Your task to perform on an android device: turn on airplane mode Image 0: 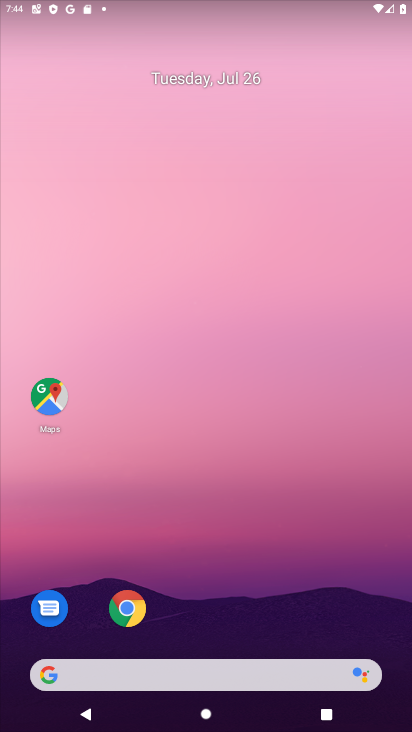
Step 0: drag from (303, 510) to (261, 195)
Your task to perform on an android device: turn on airplane mode Image 1: 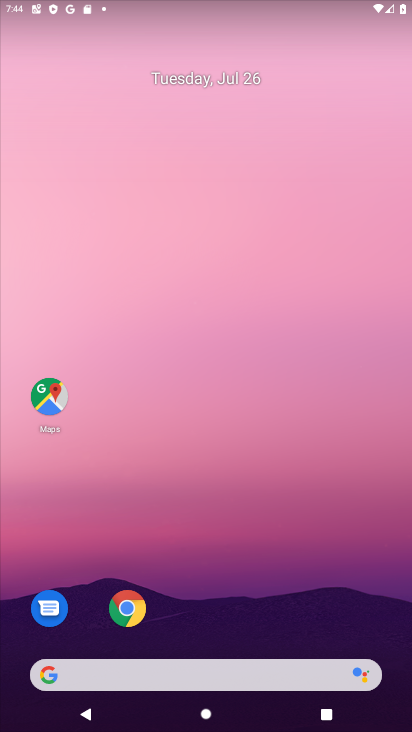
Step 1: drag from (194, 525) to (181, 57)
Your task to perform on an android device: turn on airplane mode Image 2: 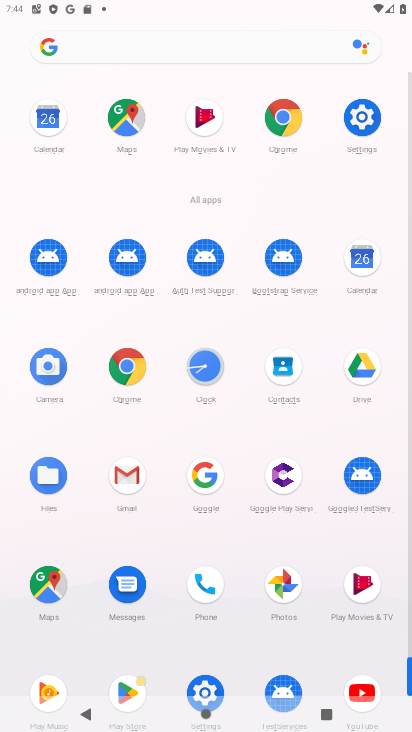
Step 2: click (352, 124)
Your task to perform on an android device: turn on airplane mode Image 3: 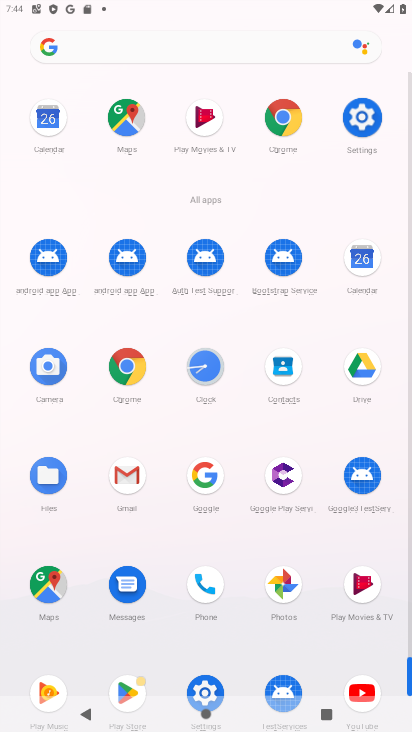
Step 3: click (361, 117)
Your task to perform on an android device: turn on airplane mode Image 4: 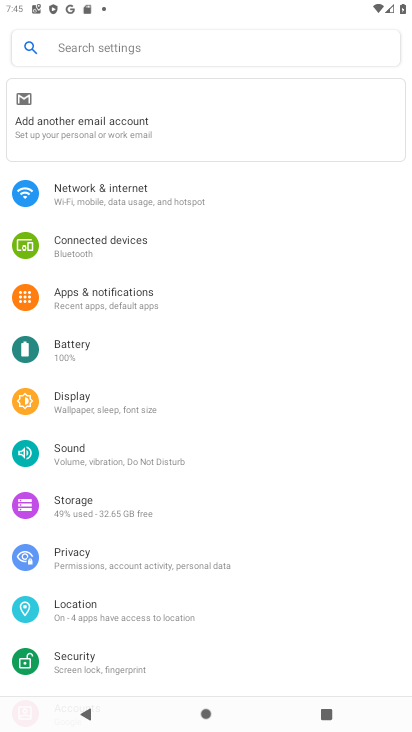
Step 4: click (94, 190)
Your task to perform on an android device: turn on airplane mode Image 5: 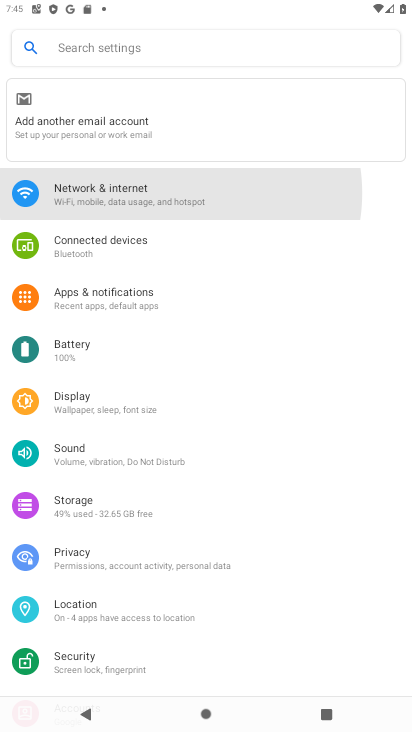
Step 5: click (96, 188)
Your task to perform on an android device: turn on airplane mode Image 6: 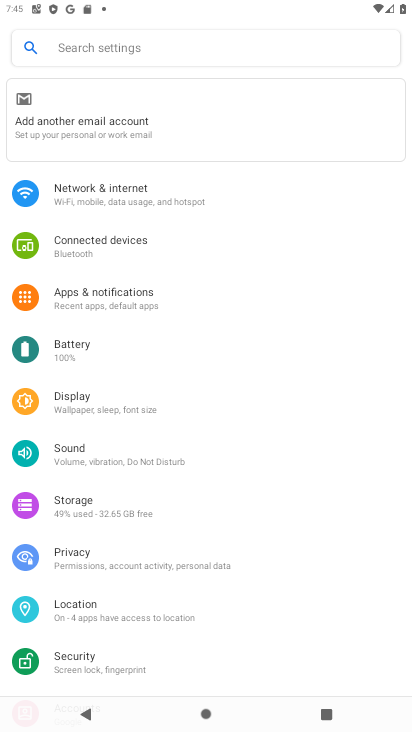
Step 6: click (96, 188)
Your task to perform on an android device: turn on airplane mode Image 7: 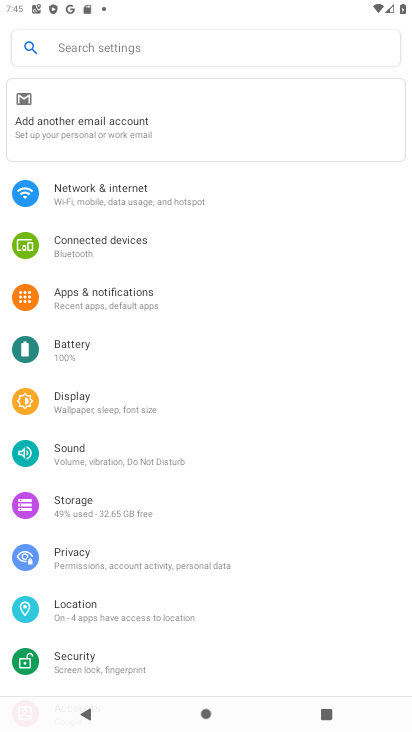
Step 7: click (96, 188)
Your task to perform on an android device: turn on airplane mode Image 8: 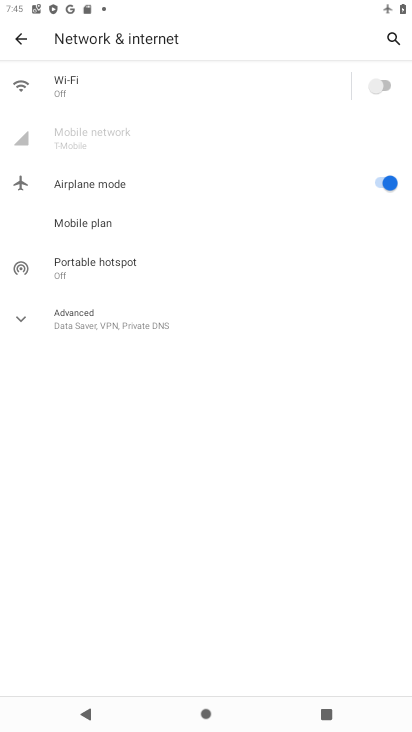
Step 8: click (383, 79)
Your task to perform on an android device: turn on airplane mode Image 9: 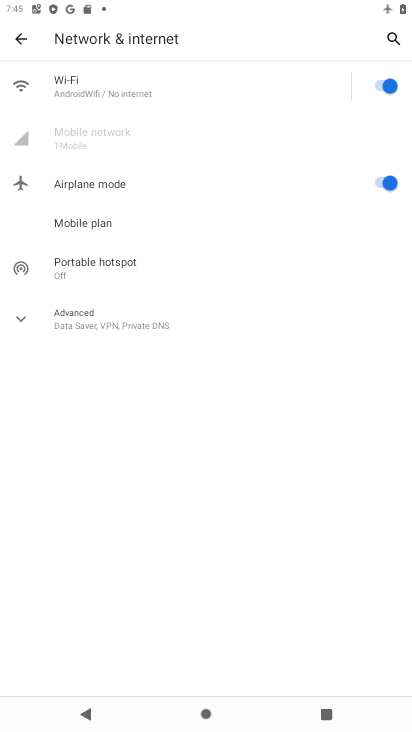
Step 9: click (390, 85)
Your task to perform on an android device: turn on airplane mode Image 10: 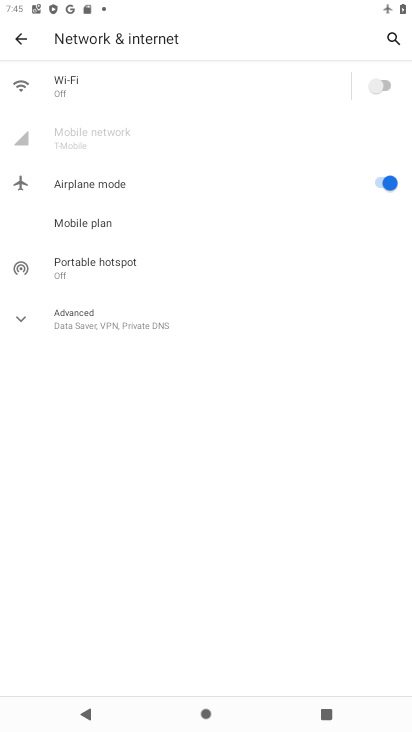
Step 10: task complete